Your task to perform on an android device: Open calendar and show me the second week of next month Image 0: 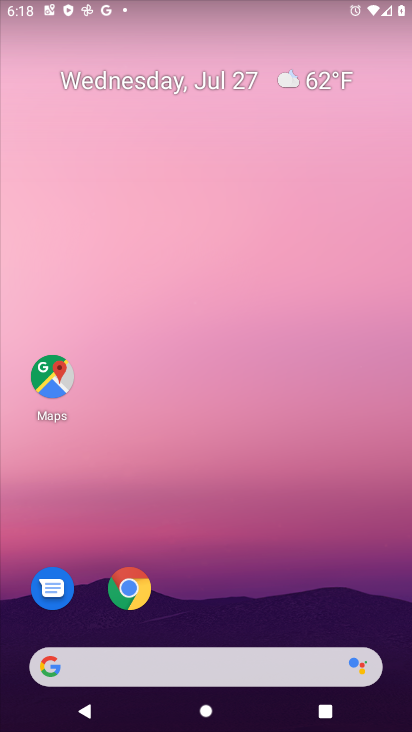
Step 0: drag from (181, 472) to (155, 168)
Your task to perform on an android device: Open calendar and show me the second week of next month Image 1: 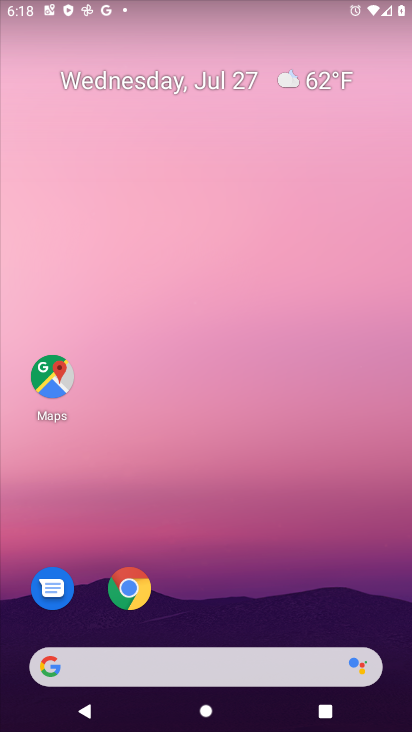
Step 1: drag from (200, 444) to (173, 83)
Your task to perform on an android device: Open calendar and show me the second week of next month Image 2: 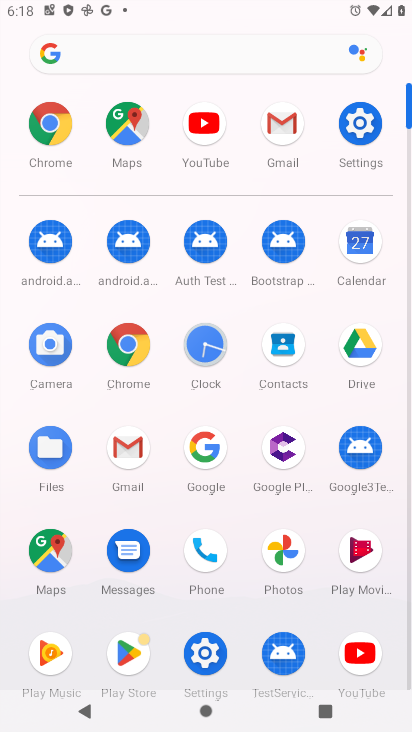
Step 2: click (353, 244)
Your task to perform on an android device: Open calendar and show me the second week of next month Image 3: 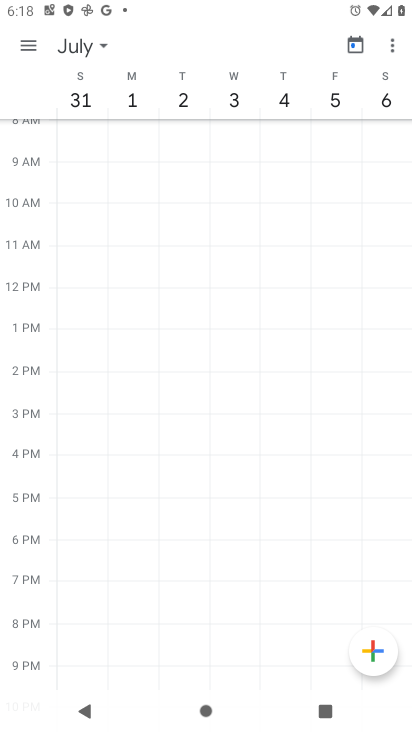
Step 3: click (81, 49)
Your task to perform on an android device: Open calendar and show me the second week of next month Image 4: 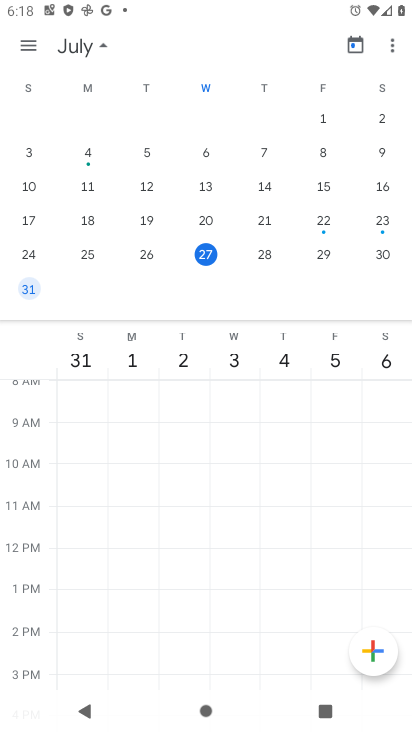
Step 4: drag from (322, 190) to (4, 243)
Your task to perform on an android device: Open calendar and show me the second week of next month Image 5: 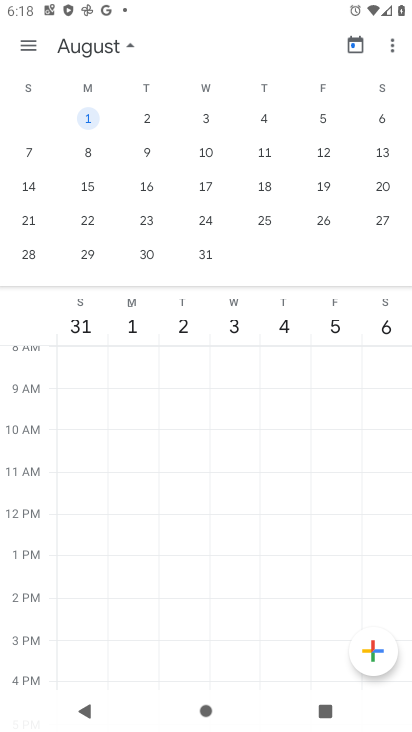
Step 5: click (25, 154)
Your task to perform on an android device: Open calendar and show me the second week of next month Image 6: 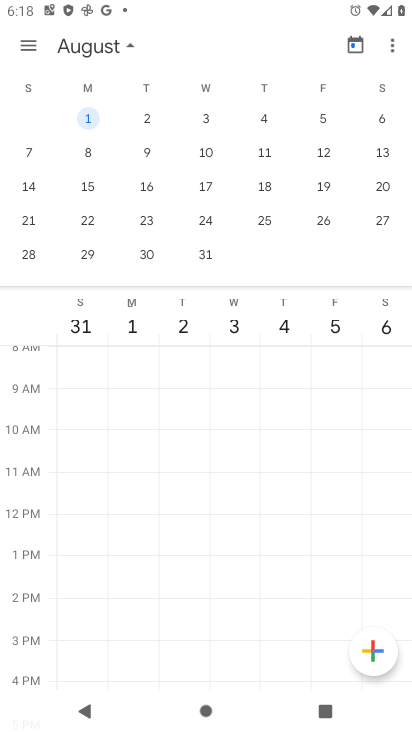
Step 6: click (25, 154)
Your task to perform on an android device: Open calendar and show me the second week of next month Image 7: 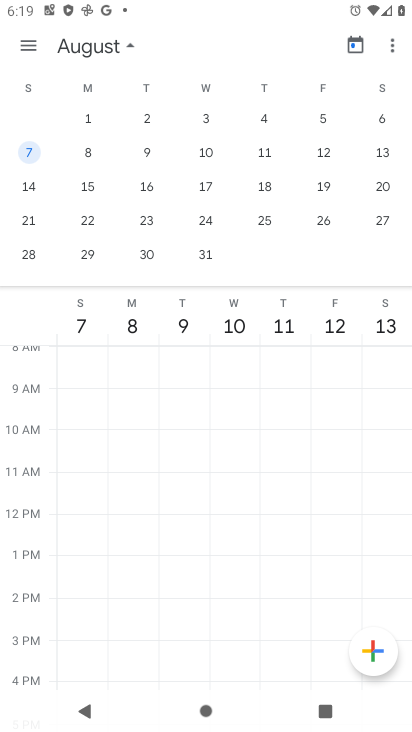
Step 7: task complete